Your task to perform on an android device: toggle notifications settings in the gmail app Image 0: 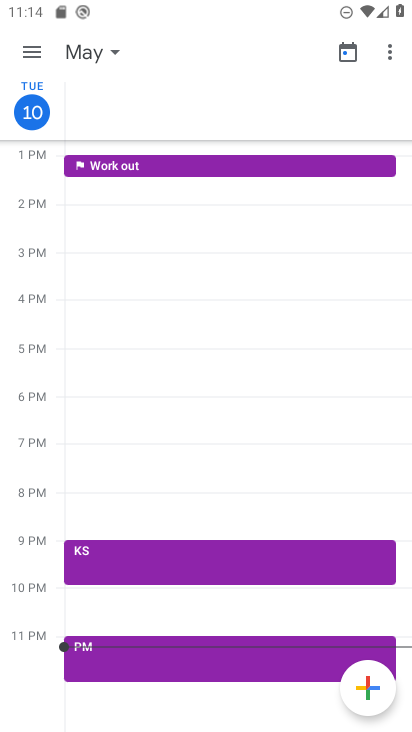
Step 0: drag from (212, 645) to (345, 252)
Your task to perform on an android device: toggle notifications settings in the gmail app Image 1: 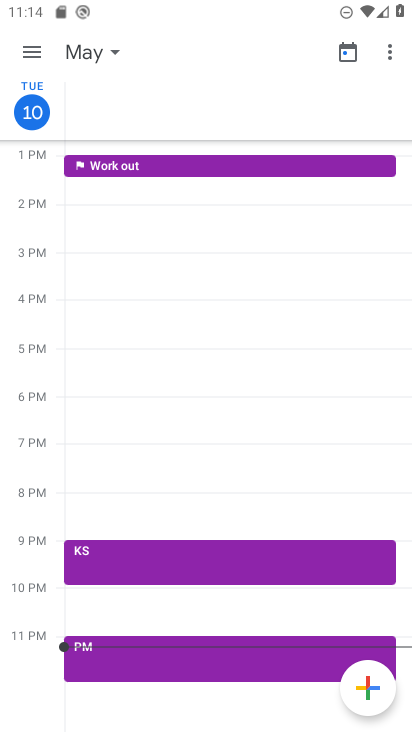
Step 1: drag from (252, 586) to (299, 72)
Your task to perform on an android device: toggle notifications settings in the gmail app Image 2: 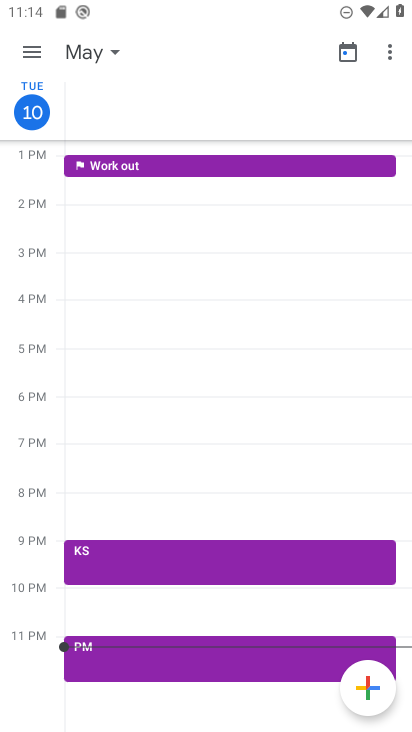
Step 2: press home button
Your task to perform on an android device: toggle notifications settings in the gmail app Image 3: 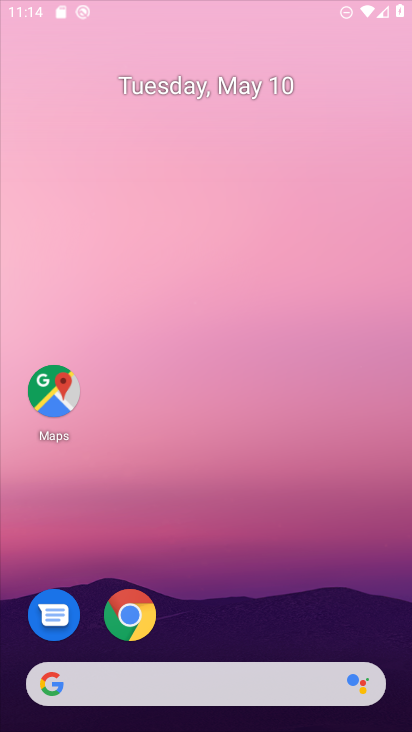
Step 3: drag from (190, 621) to (215, 189)
Your task to perform on an android device: toggle notifications settings in the gmail app Image 4: 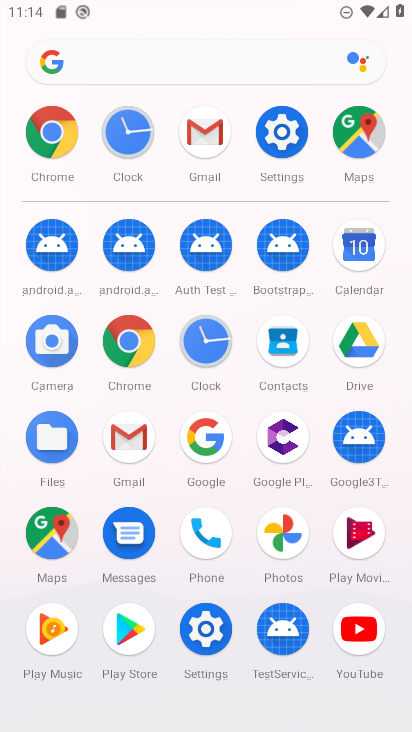
Step 4: click (125, 434)
Your task to perform on an android device: toggle notifications settings in the gmail app Image 5: 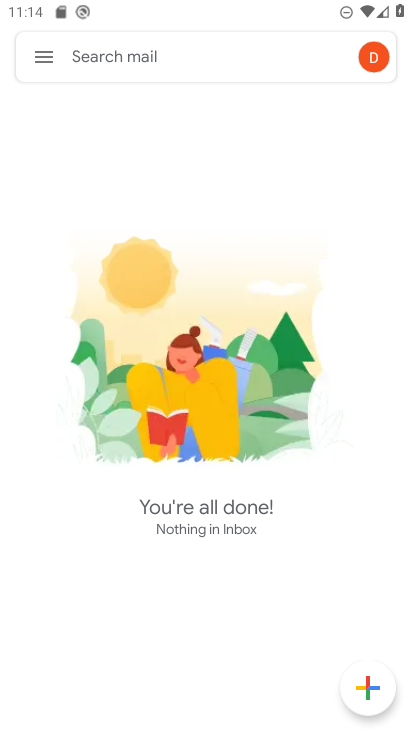
Step 5: drag from (214, 459) to (211, 240)
Your task to perform on an android device: toggle notifications settings in the gmail app Image 6: 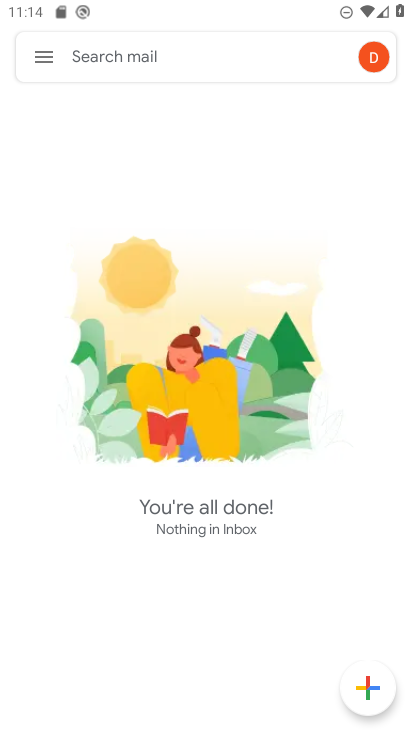
Step 6: click (49, 62)
Your task to perform on an android device: toggle notifications settings in the gmail app Image 7: 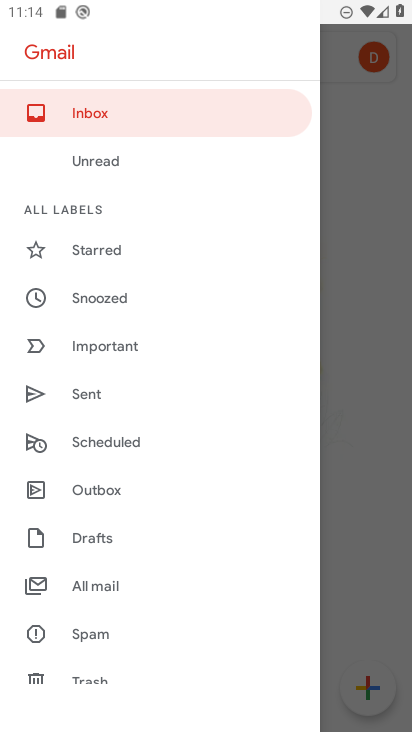
Step 7: drag from (131, 694) to (191, 266)
Your task to perform on an android device: toggle notifications settings in the gmail app Image 8: 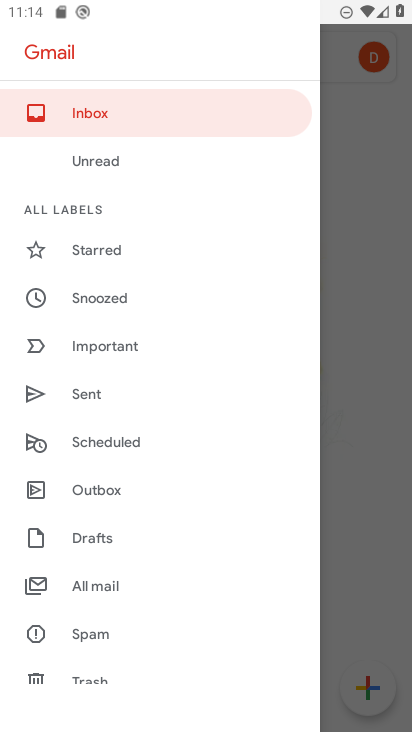
Step 8: drag from (174, 612) to (226, 214)
Your task to perform on an android device: toggle notifications settings in the gmail app Image 9: 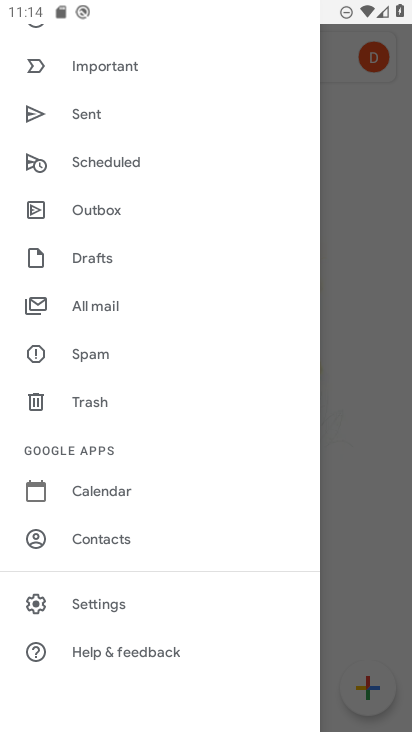
Step 9: click (113, 598)
Your task to perform on an android device: toggle notifications settings in the gmail app Image 10: 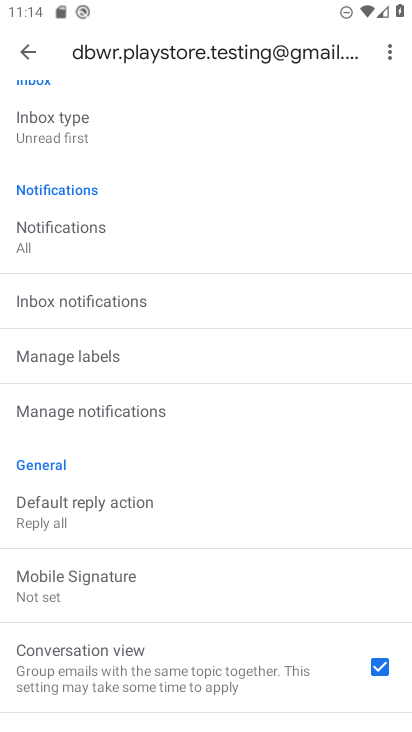
Step 10: drag from (193, 640) to (197, 366)
Your task to perform on an android device: toggle notifications settings in the gmail app Image 11: 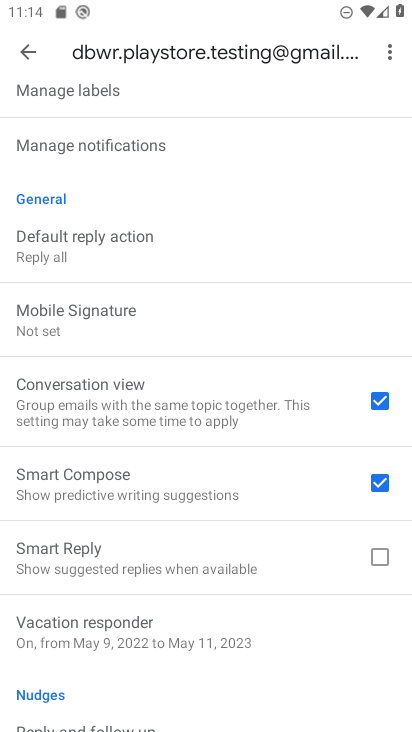
Step 11: click (94, 152)
Your task to perform on an android device: toggle notifications settings in the gmail app Image 12: 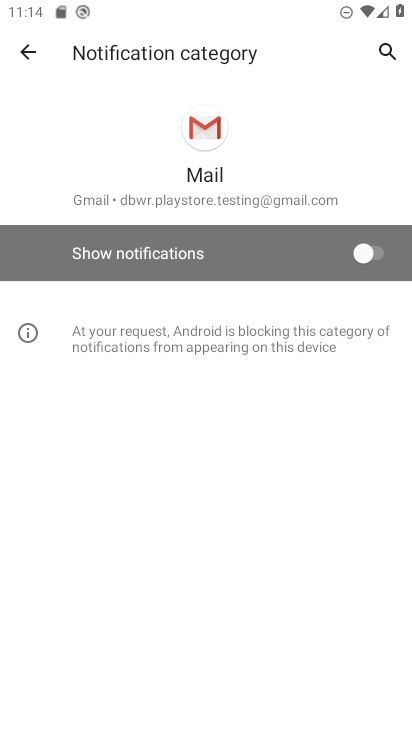
Step 12: click (395, 283)
Your task to perform on an android device: toggle notifications settings in the gmail app Image 13: 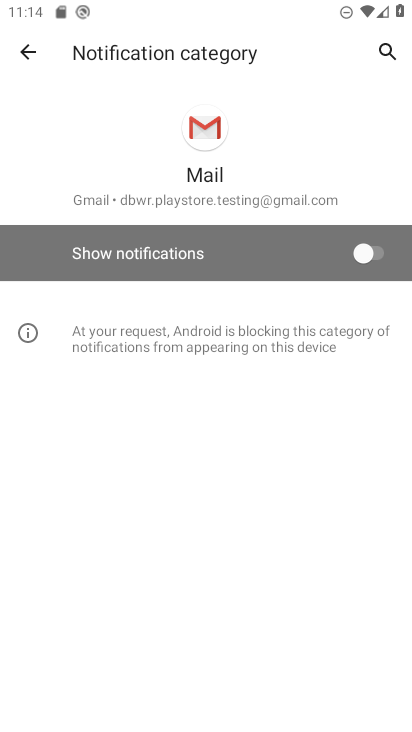
Step 13: click (363, 267)
Your task to perform on an android device: toggle notifications settings in the gmail app Image 14: 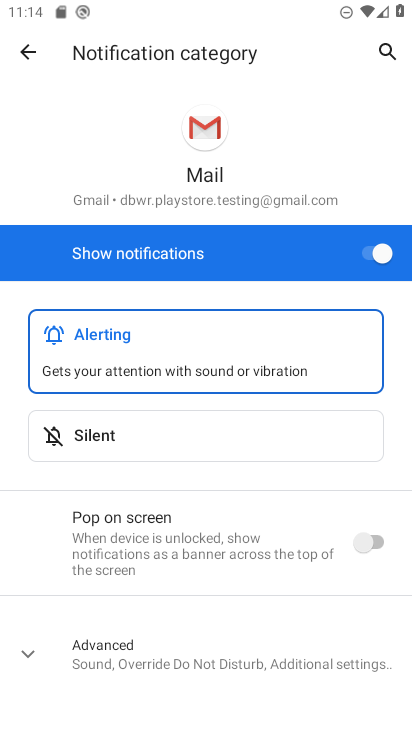
Step 14: task complete